Your task to perform on an android device: Search for Mexican restaurants on Maps Image 0: 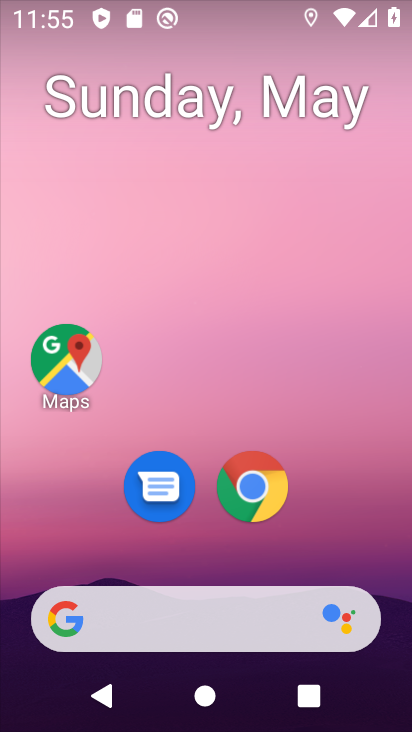
Step 0: click (66, 358)
Your task to perform on an android device: Search for Mexican restaurants on Maps Image 1: 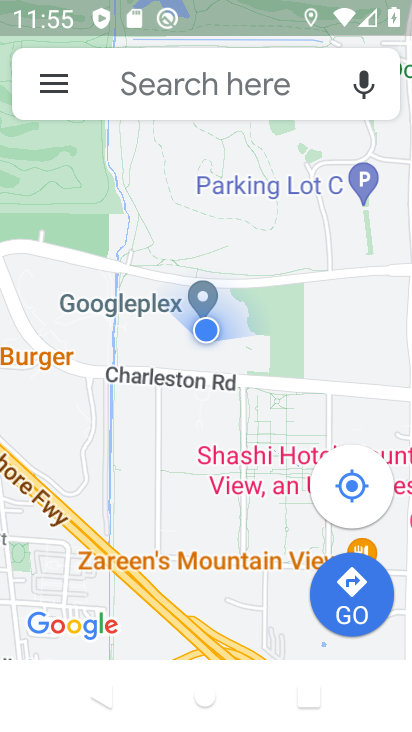
Step 1: click (56, 87)
Your task to perform on an android device: Search for Mexican restaurants on Maps Image 2: 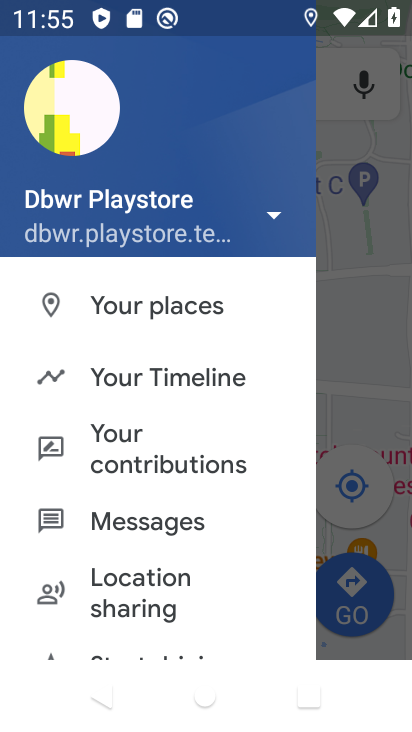
Step 2: click (387, 317)
Your task to perform on an android device: Search for Mexican restaurants on Maps Image 3: 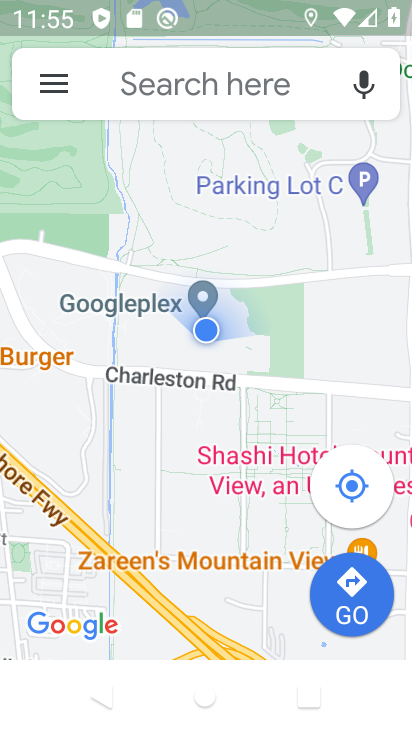
Step 3: click (191, 82)
Your task to perform on an android device: Search for Mexican restaurants on Maps Image 4: 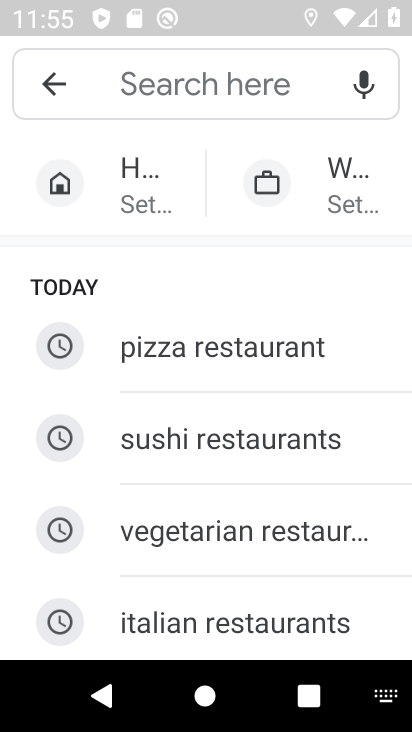
Step 4: type "mexican restaurants"
Your task to perform on an android device: Search for Mexican restaurants on Maps Image 5: 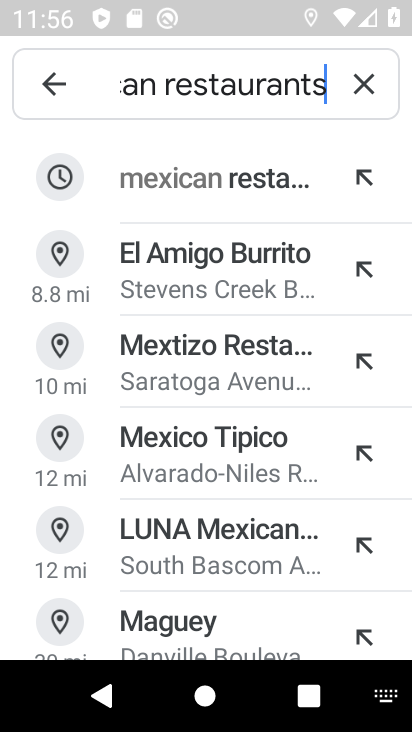
Step 5: click (167, 207)
Your task to perform on an android device: Search for Mexican restaurants on Maps Image 6: 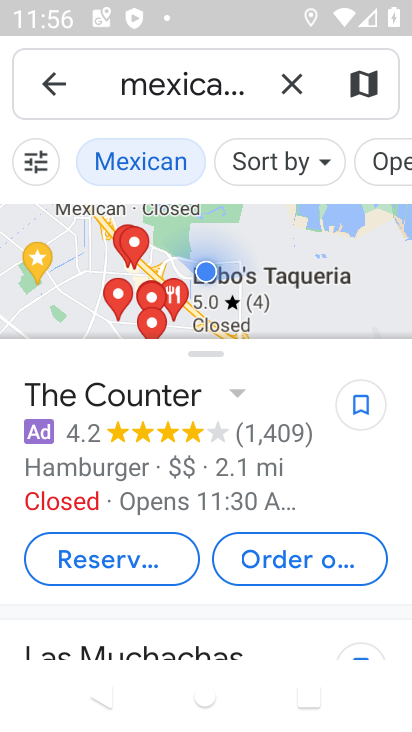
Step 6: task complete